Your task to perform on an android device: Open Google Image 0: 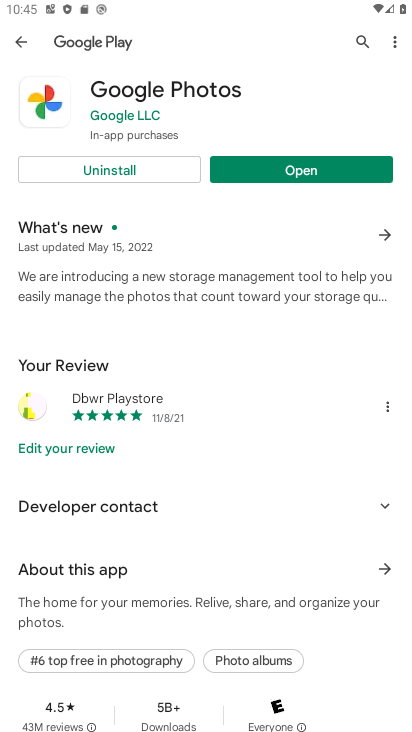
Step 0: press home button
Your task to perform on an android device: Open Google Image 1: 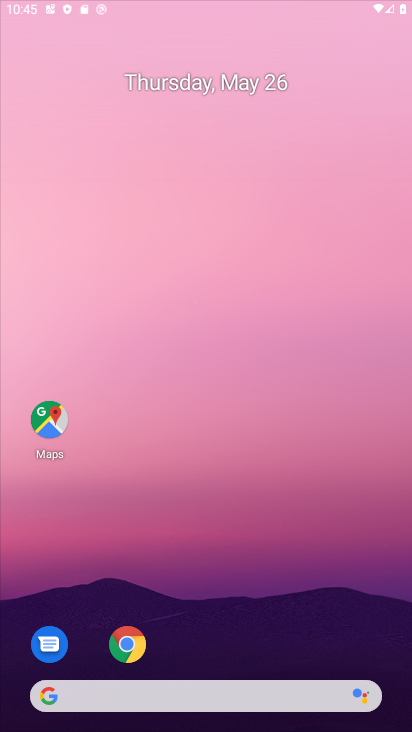
Step 1: drag from (373, 607) to (213, 2)
Your task to perform on an android device: Open Google Image 2: 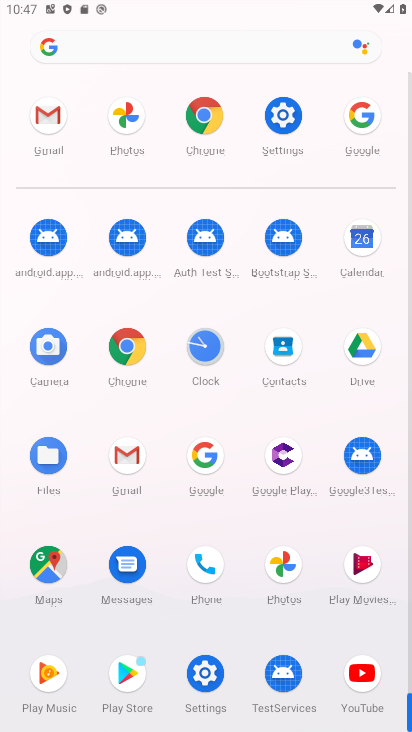
Step 2: click (214, 466)
Your task to perform on an android device: Open Google Image 3: 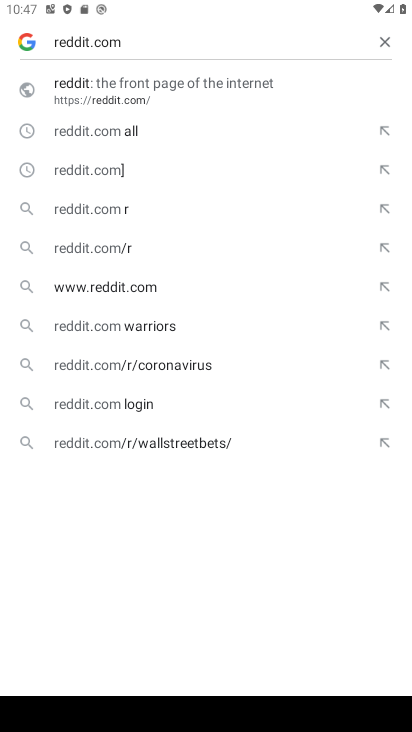
Step 3: click (392, 45)
Your task to perform on an android device: Open Google Image 4: 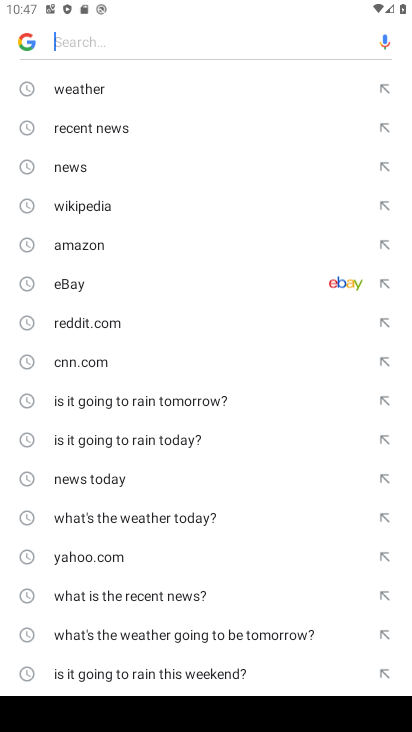
Step 4: task complete